Your task to perform on an android device: check android version Image 0: 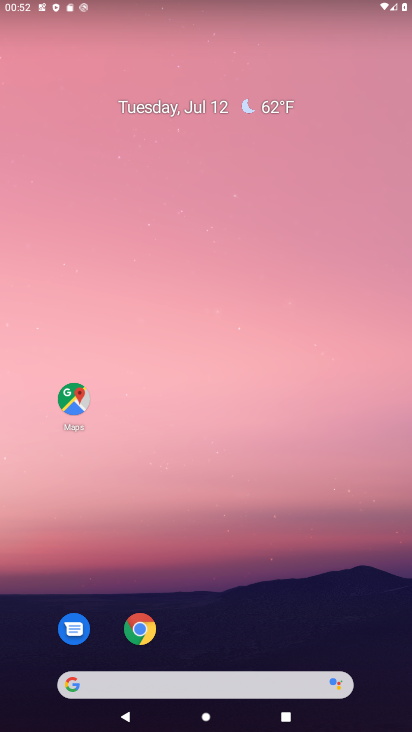
Step 0: press home button
Your task to perform on an android device: check android version Image 1: 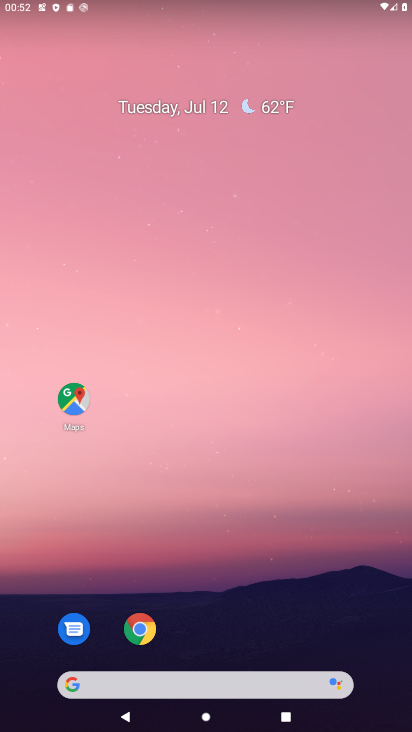
Step 1: press home button
Your task to perform on an android device: check android version Image 2: 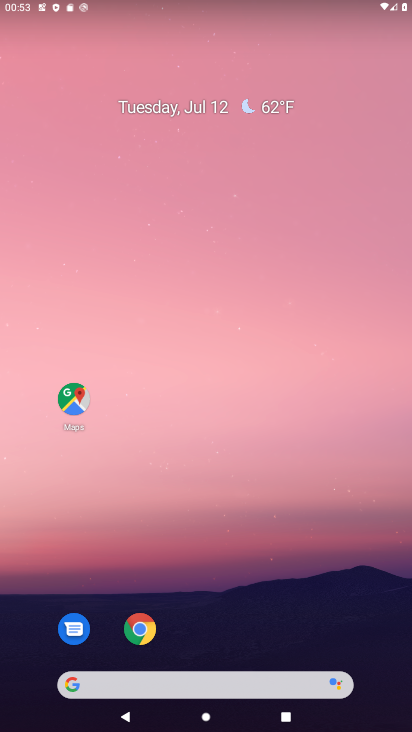
Step 2: drag from (375, 669) to (332, 62)
Your task to perform on an android device: check android version Image 3: 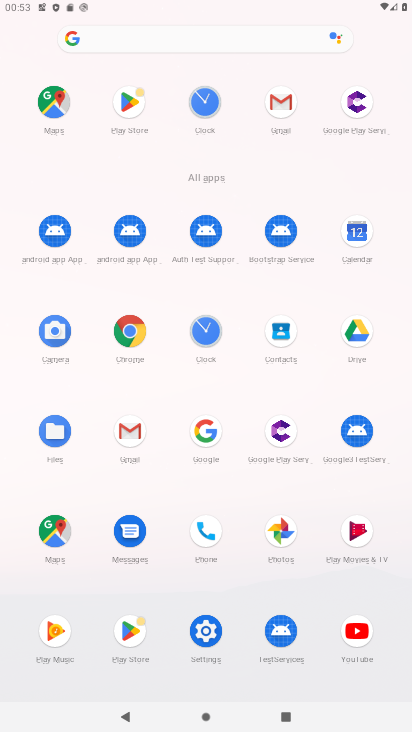
Step 3: click (205, 628)
Your task to perform on an android device: check android version Image 4: 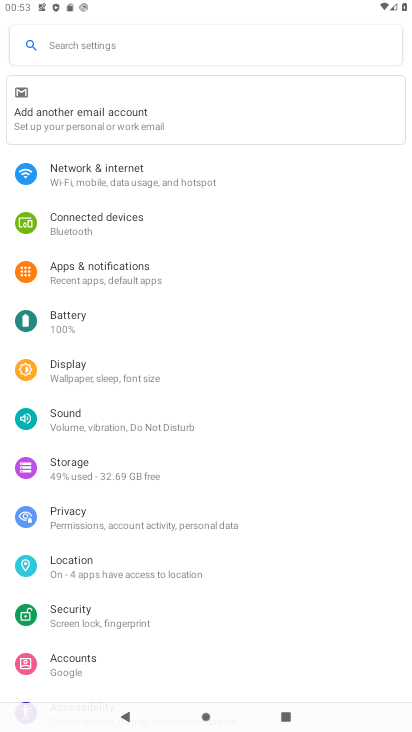
Step 4: drag from (92, 536) to (84, 148)
Your task to perform on an android device: check android version Image 5: 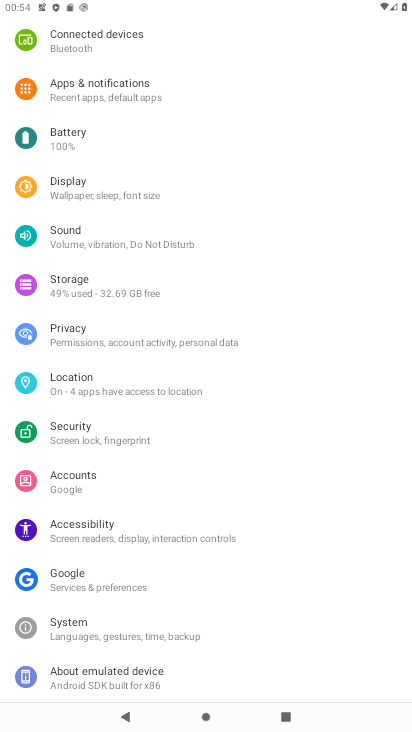
Step 5: click (81, 688)
Your task to perform on an android device: check android version Image 6: 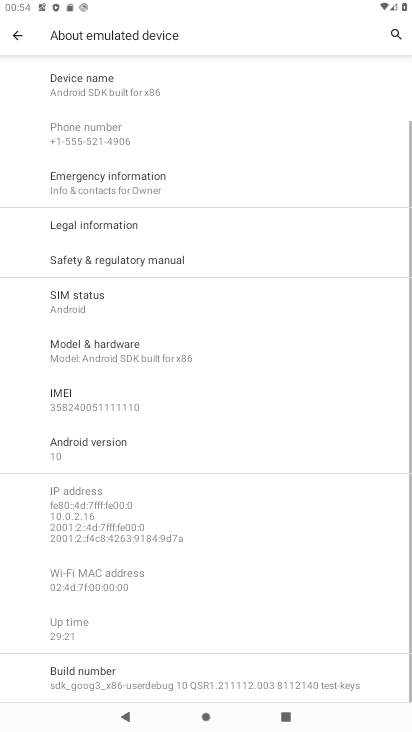
Step 6: click (97, 460)
Your task to perform on an android device: check android version Image 7: 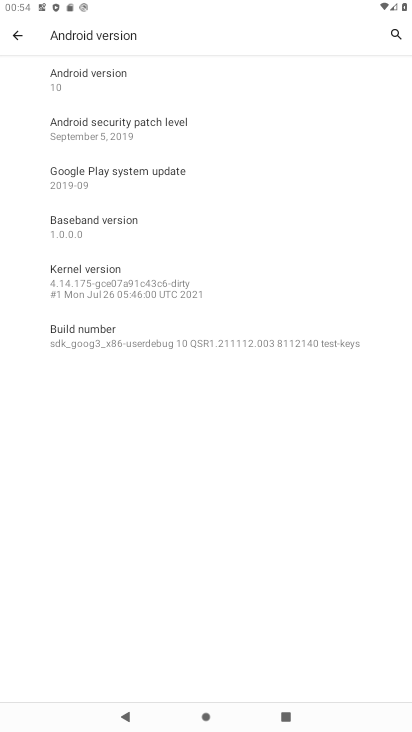
Step 7: click (75, 73)
Your task to perform on an android device: check android version Image 8: 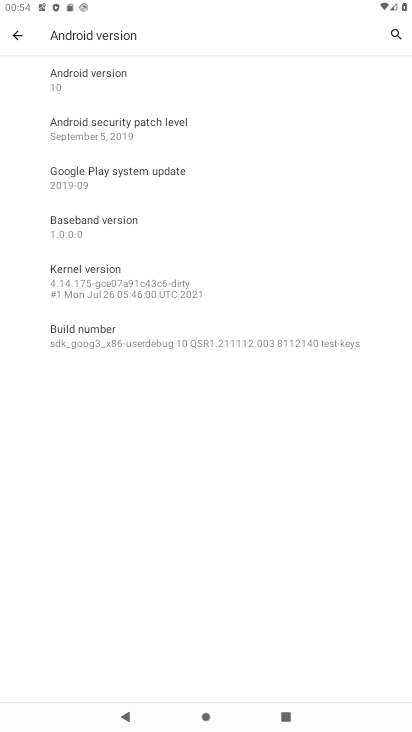
Step 8: task complete